Your task to perform on an android device: How much does a 3 bedroom apartment rent for in New York? Image 0: 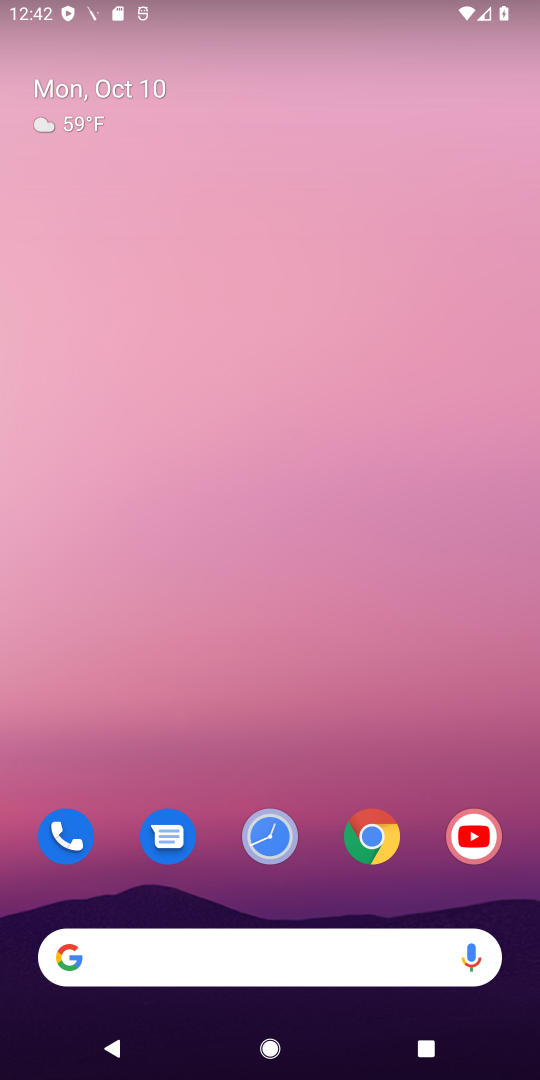
Step 0: click (391, 846)
Your task to perform on an android device: How much does a 3 bedroom apartment rent for in New York? Image 1: 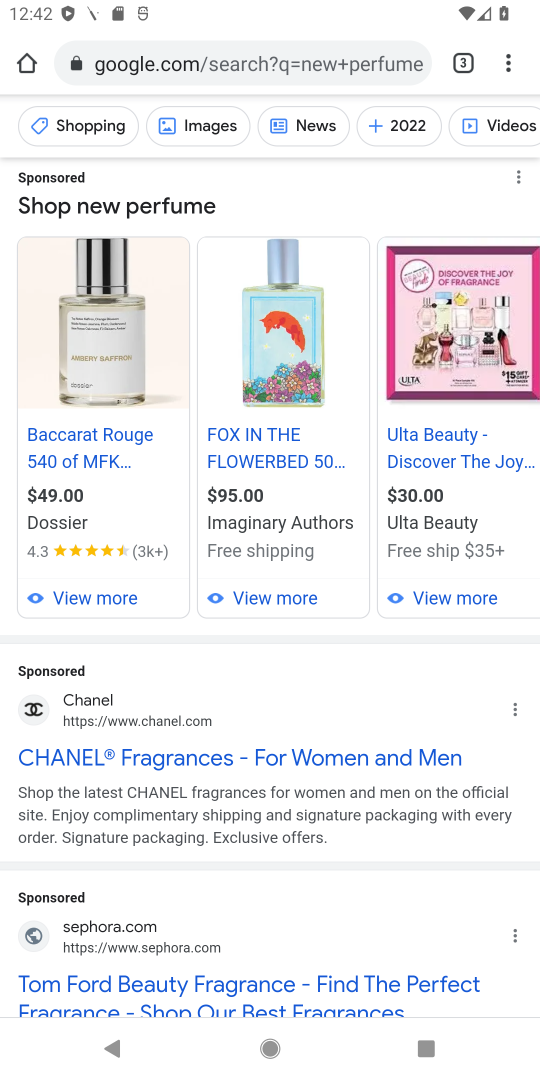
Step 1: drag from (326, 1064) to (513, 475)
Your task to perform on an android device: How much does a 3 bedroom apartment rent for in New York? Image 2: 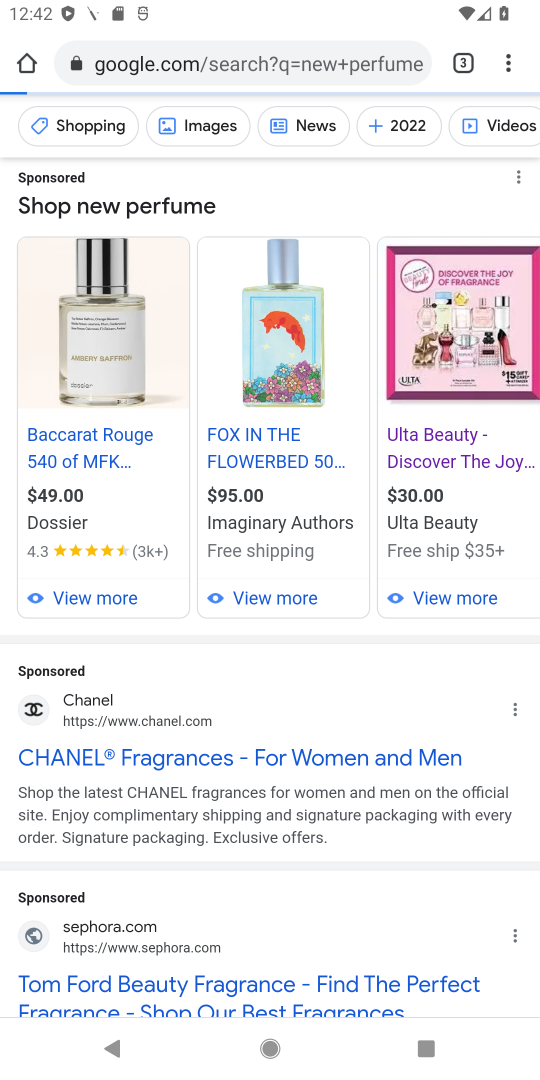
Step 2: click (253, 69)
Your task to perform on an android device: How much does a 3 bedroom apartment rent for in New York? Image 3: 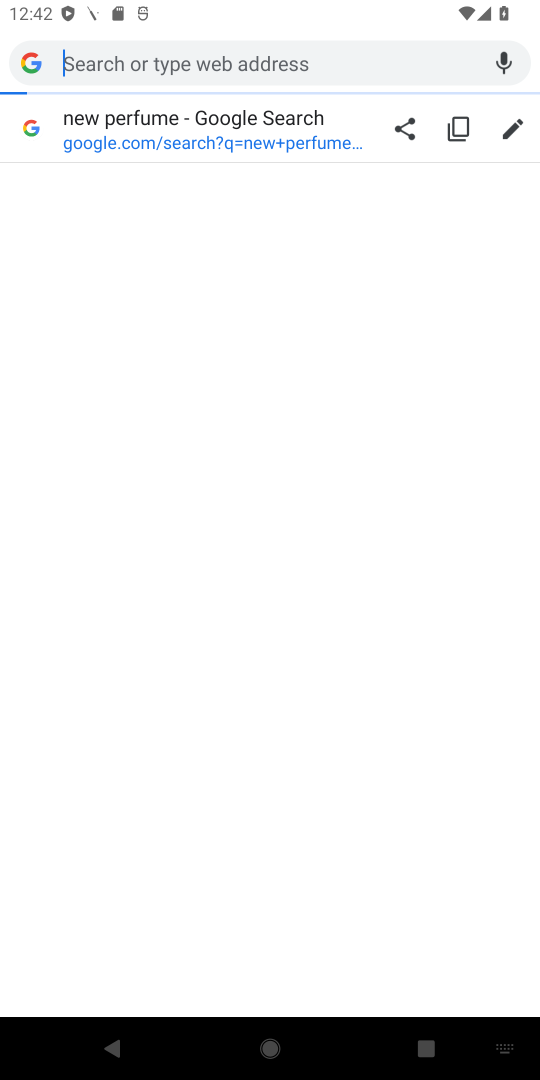
Step 3: type "3 bedroom apartment rent for in New York"
Your task to perform on an android device: How much does a 3 bedroom apartment rent for in New York? Image 4: 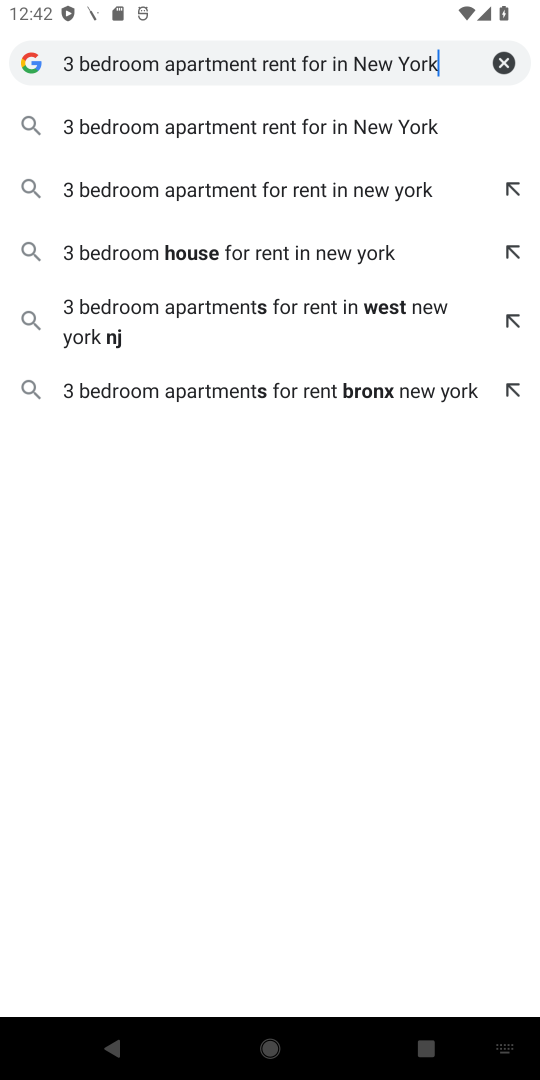
Step 4: click (248, 109)
Your task to perform on an android device: How much does a 3 bedroom apartment rent for in New York? Image 5: 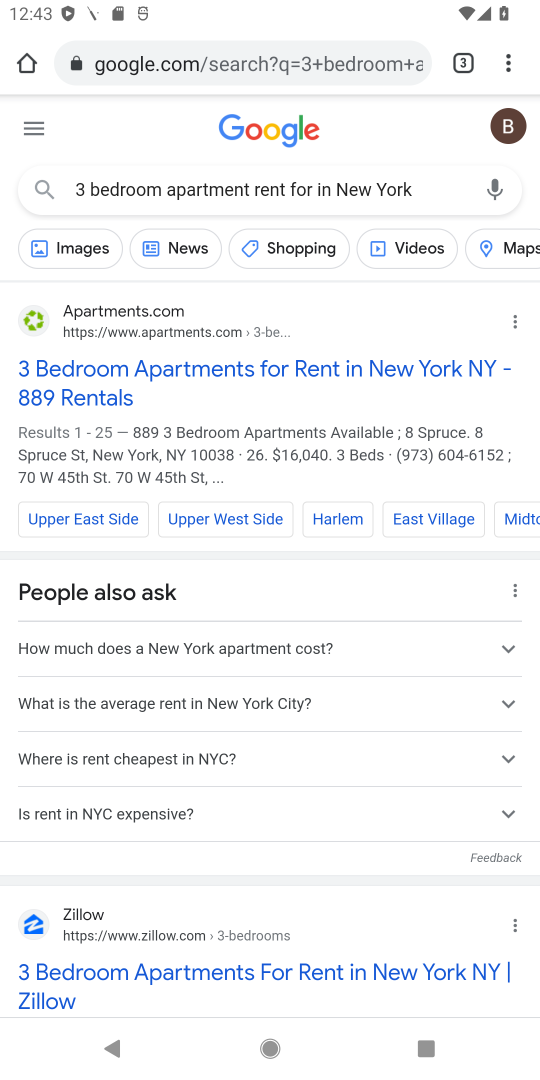
Step 5: click (224, 356)
Your task to perform on an android device: How much does a 3 bedroom apartment rent for in New York? Image 6: 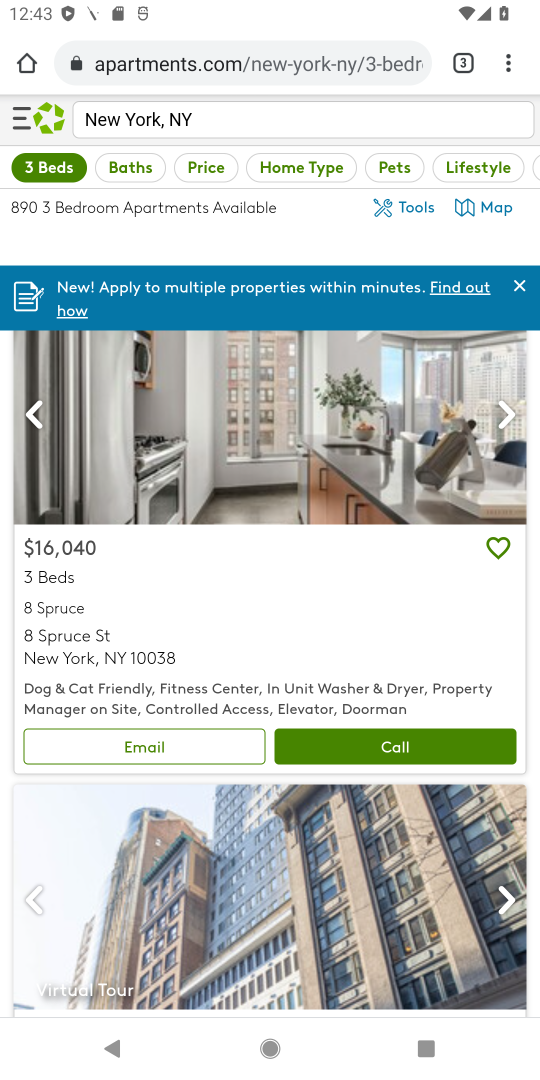
Step 6: task complete